Your task to perform on an android device: show emergency info Image 0: 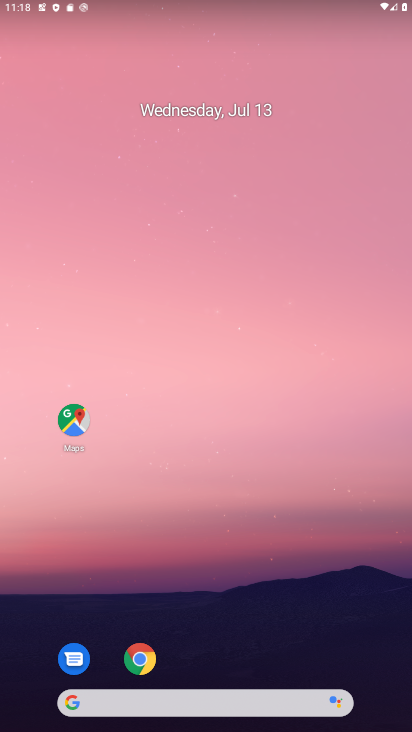
Step 0: drag from (381, 637) to (323, 182)
Your task to perform on an android device: show emergency info Image 1: 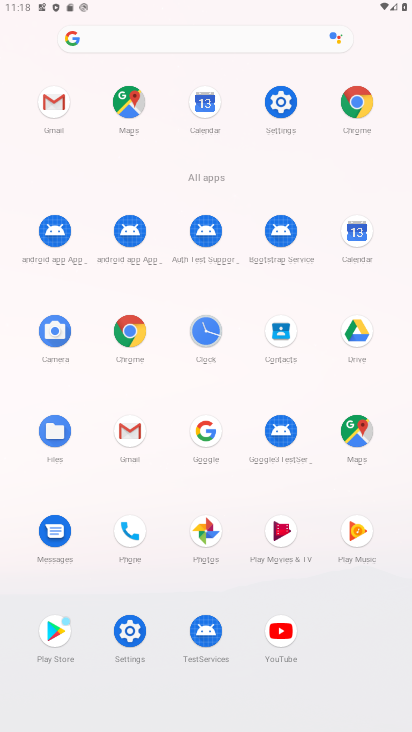
Step 1: click (280, 99)
Your task to perform on an android device: show emergency info Image 2: 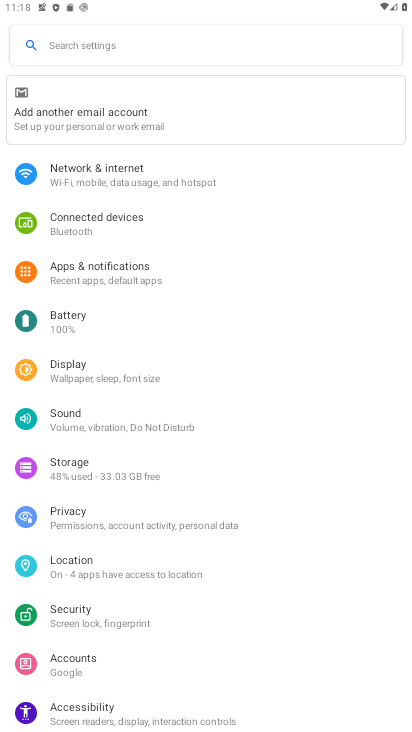
Step 2: drag from (213, 681) to (157, 203)
Your task to perform on an android device: show emergency info Image 3: 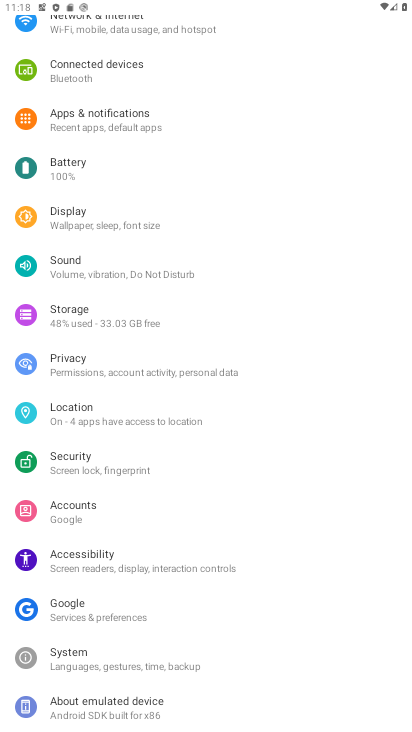
Step 3: click (187, 707)
Your task to perform on an android device: show emergency info Image 4: 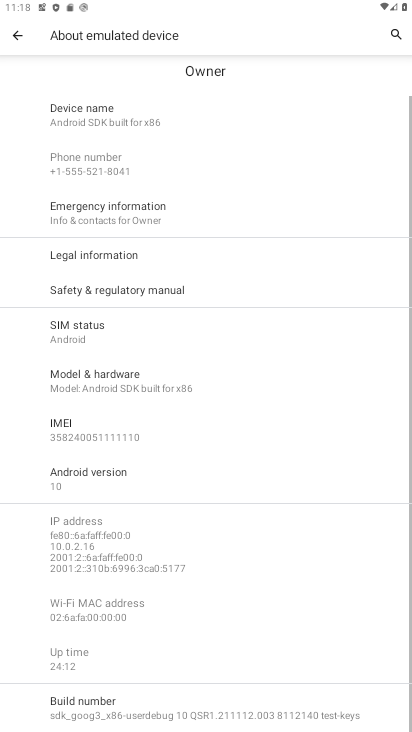
Step 4: click (206, 207)
Your task to perform on an android device: show emergency info Image 5: 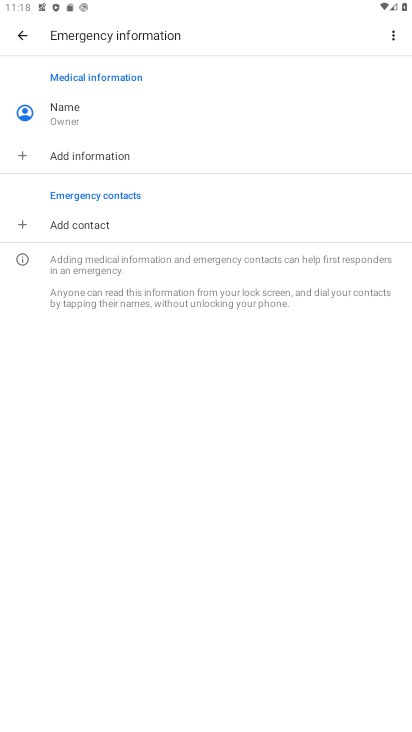
Step 5: task complete